Your task to perform on an android device: Is it going to rain tomorrow? Image 0: 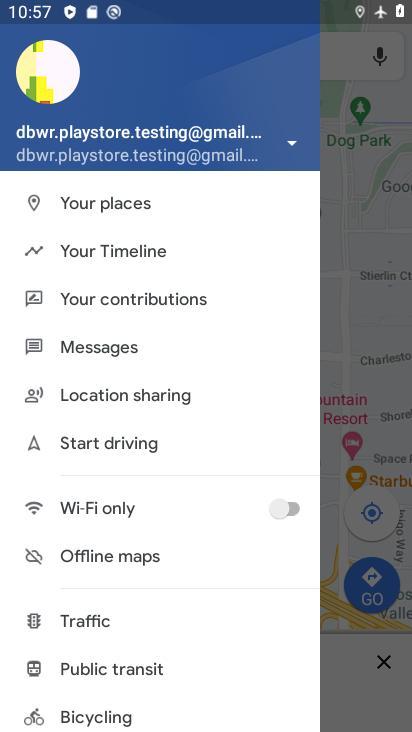
Step 0: press home button
Your task to perform on an android device: Is it going to rain tomorrow? Image 1: 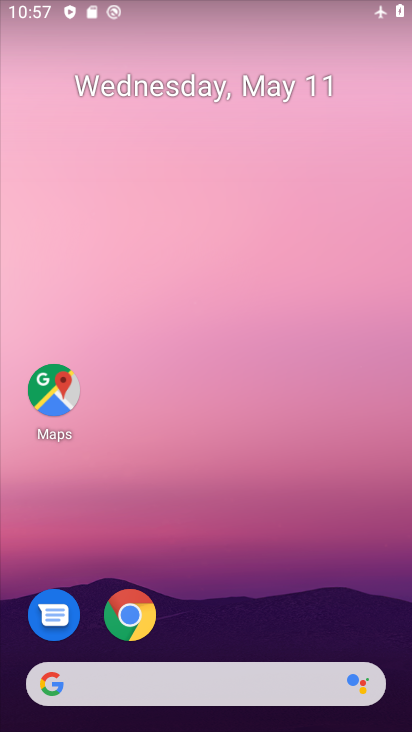
Step 1: drag from (231, 550) to (139, 47)
Your task to perform on an android device: Is it going to rain tomorrow? Image 2: 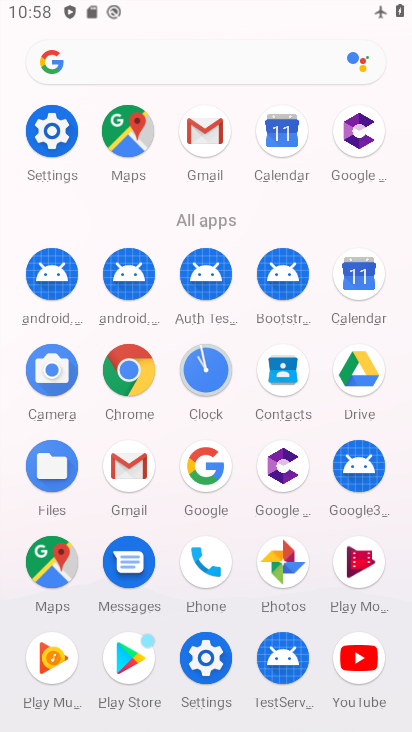
Step 2: click (184, 67)
Your task to perform on an android device: Is it going to rain tomorrow? Image 3: 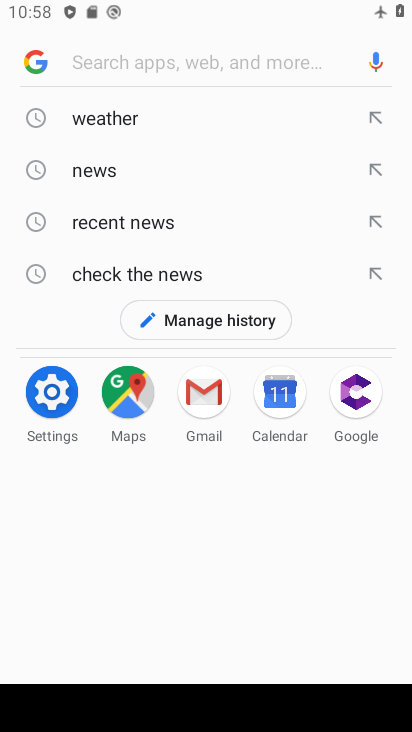
Step 3: click (118, 121)
Your task to perform on an android device: Is it going to rain tomorrow? Image 4: 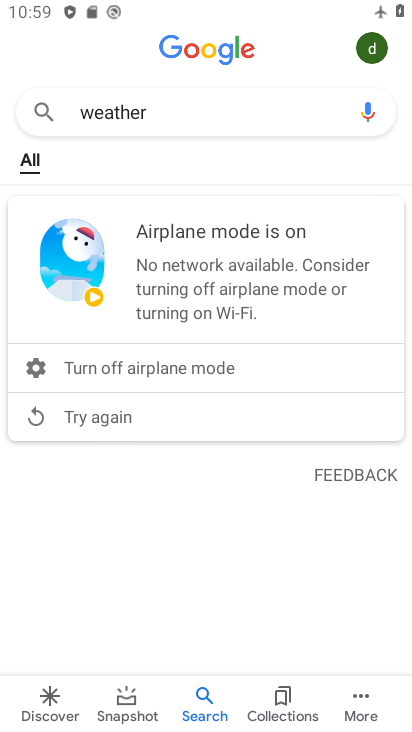
Step 4: task complete